Your task to perform on an android device: turn notification dots on Image 0: 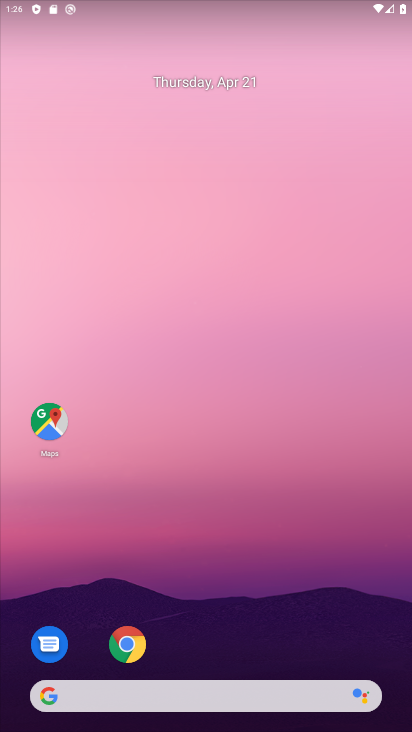
Step 0: drag from (305, 647) to (264, 135)
Your task to perform on an android device: turn notification dots on Image 1: 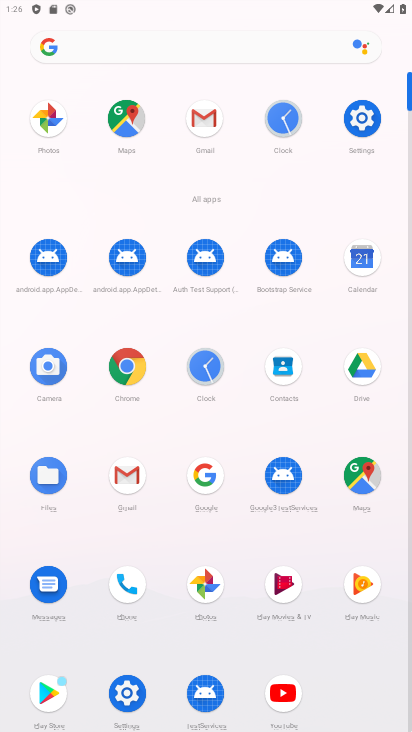
Step 1: click (369, 130)
Your task to perform on an android device: turn notification dots on Image 2: 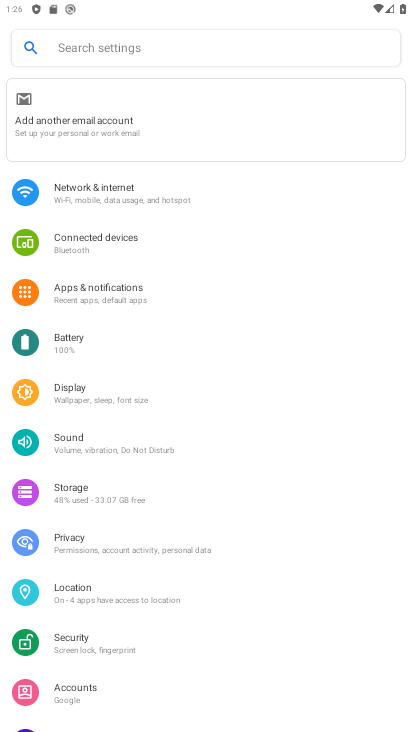
Step 2: click (258, 292)
Your task to perform on an android device: turn notification dots on Image 3: 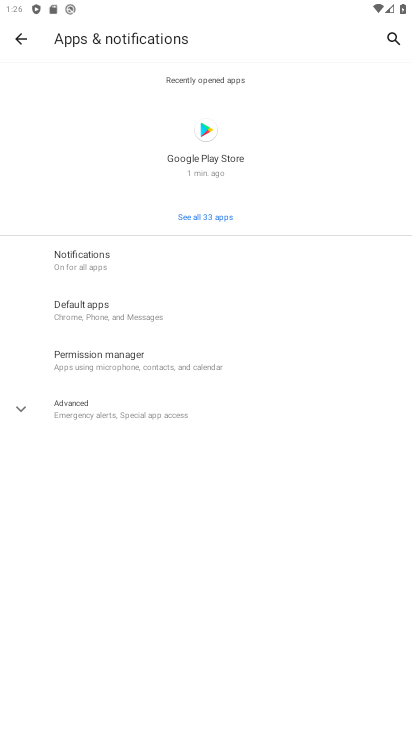
Step 3: click (211, 264)
Your task to perform on an android device: turn notification dots on Image 4: 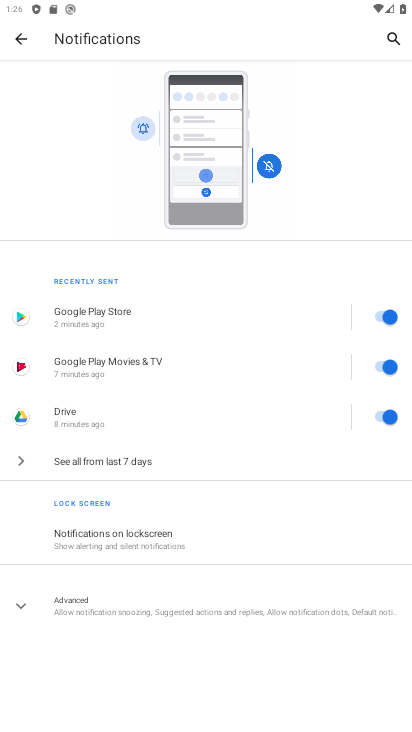
Step 4: click (241, 602)
Your task to perform on an android device: turn notification dots on Image 5: 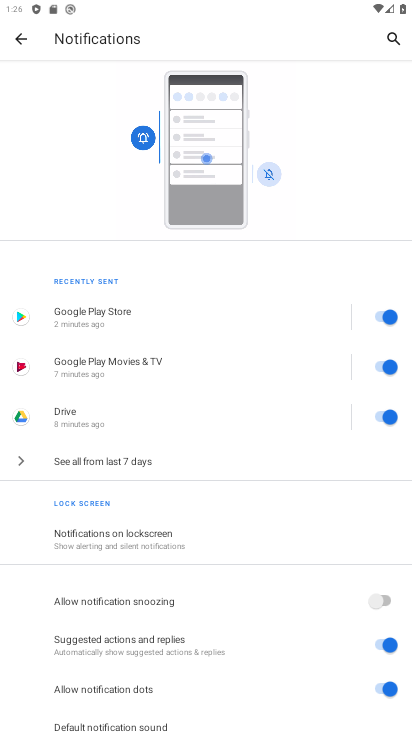
Step 5: task complete